Your task to perform on an android device: Search for vegetarian restaurants on Maps Image 0: 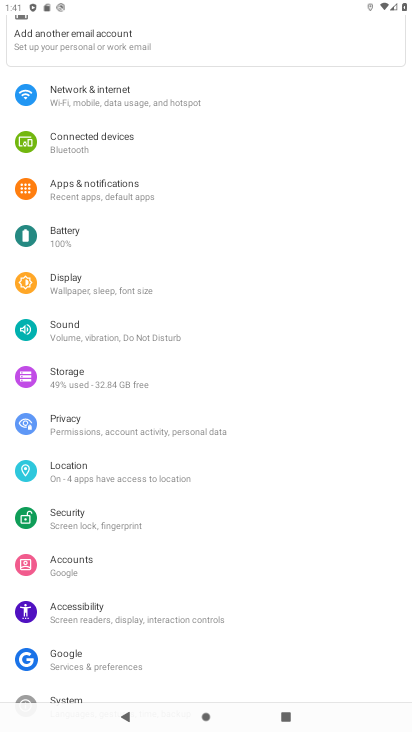
Step 0: press home button
Your task to perform on an android device: Search for vegetarian restaurants on Maps Image 1: 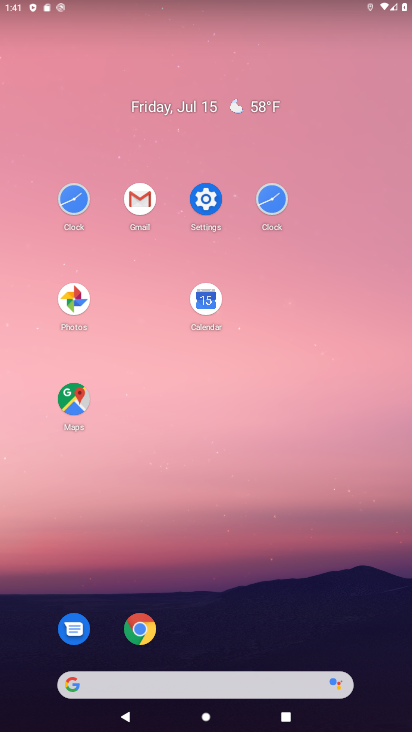
Step 1: click (65, 399)
Your task to perform on an android device: Search for vegetarian restaurants on Maps Image 2: 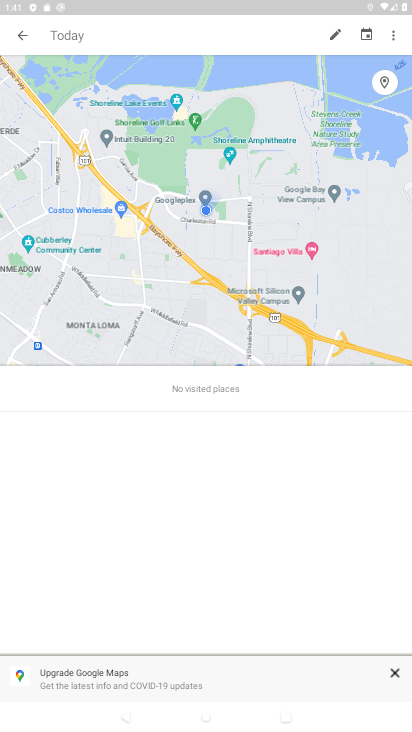
Step 2: click (31, 38)
Your task to perform on an android device: Search for vegetarian restaurants on Maps Image 3: 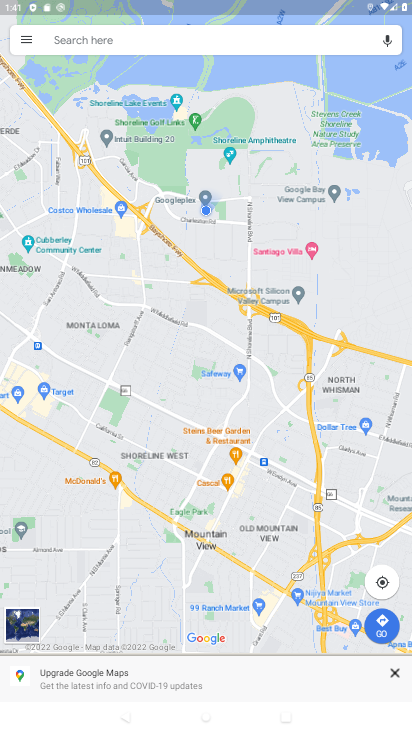
Step 3: click (150, 47)
Your task to perform on an android device: Search for vegetarian restaurants on Maps Image 4: 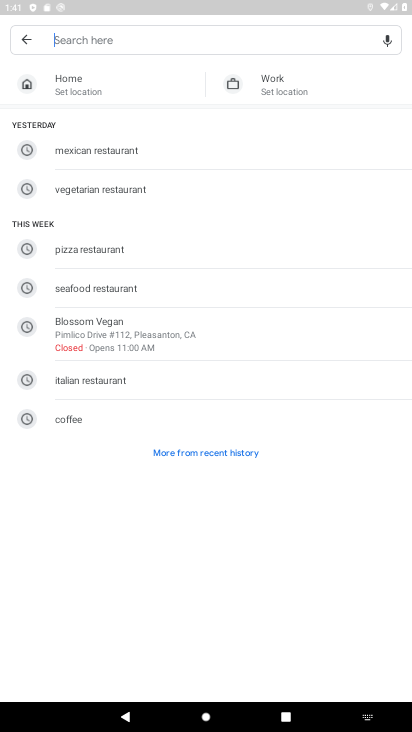
Step 4: click (165, 189)
Your task to perform on an android device: Search for vegetarian restaurants on Maps Image 5: 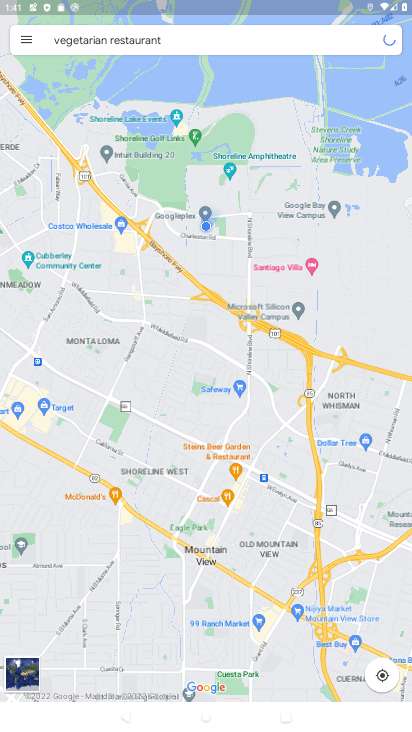
Step 5: task complete